Your task to perform on an android device: Open Chrome and go to settings Image 0: 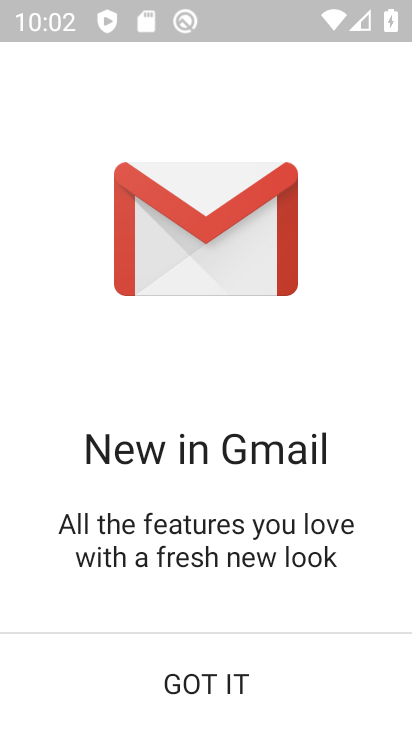
Step 0: press home button
Your task to perform on an android device: Open Chrome and go to settings Image 1: 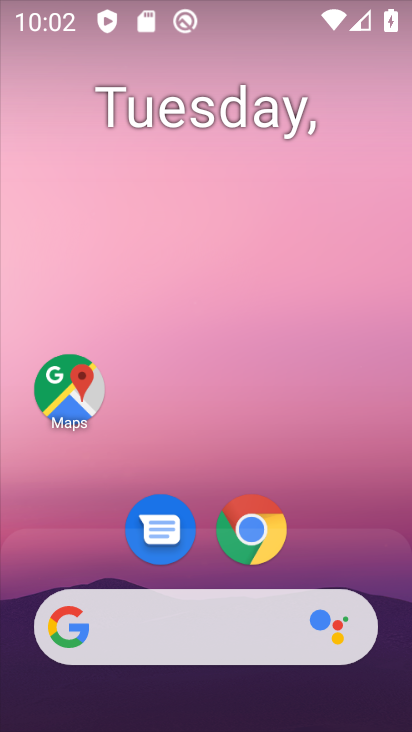
Step 1: click (263, 533)
Your task to perform on an android device: Open Chrome and go to settings Image 2: 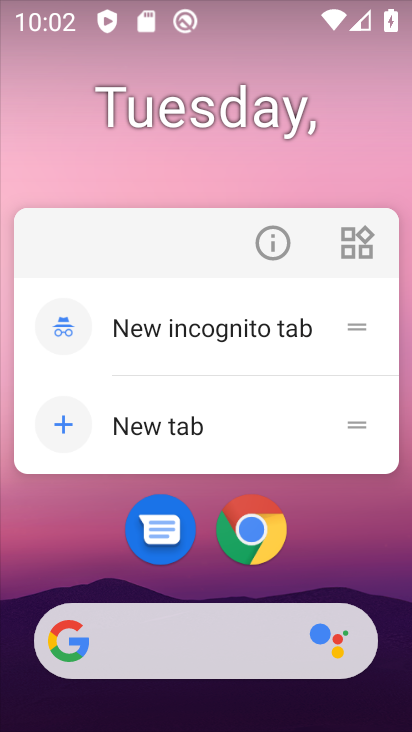
Step 2: click (249, 519)
Your task to perform on an android device: Open Chrome and go to settings Image 3: 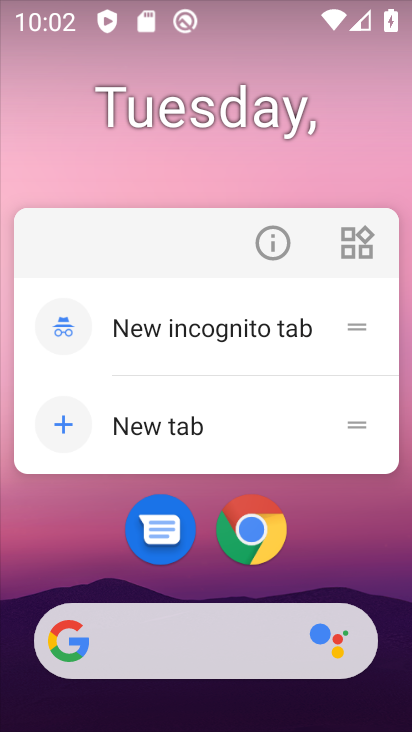
Step 3: click (245, 532)
Your task to perform on an android device: Open Chrome and go to settings Image 4: 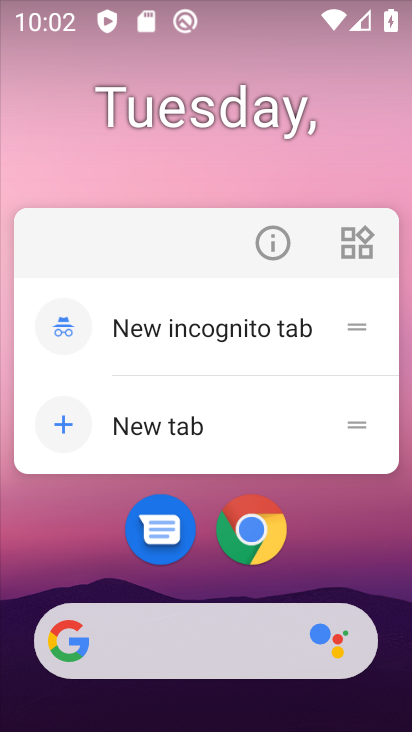
Step 4: click (248, 532)
Your task to perform on an android device: Open Chrome and go to settings Image 5: 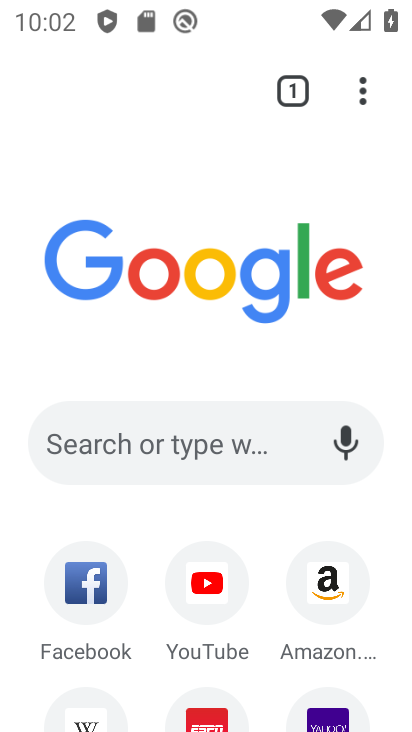
Step 5: task complete